Your task to perform on an android device: turn off location Image 0: 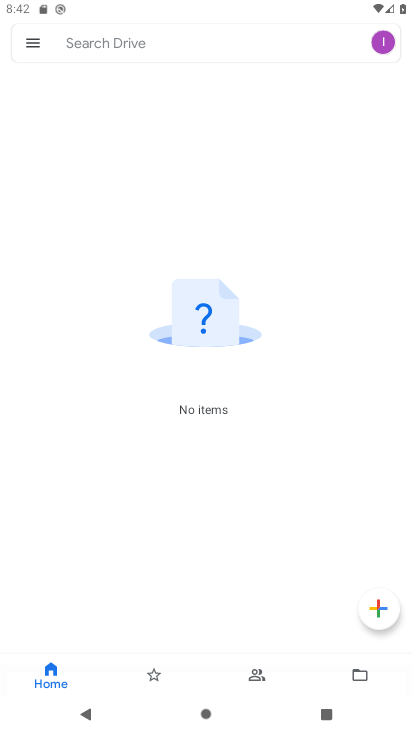
Step 0: press home button
Your task to perform on an android device: turn off location Image 1: 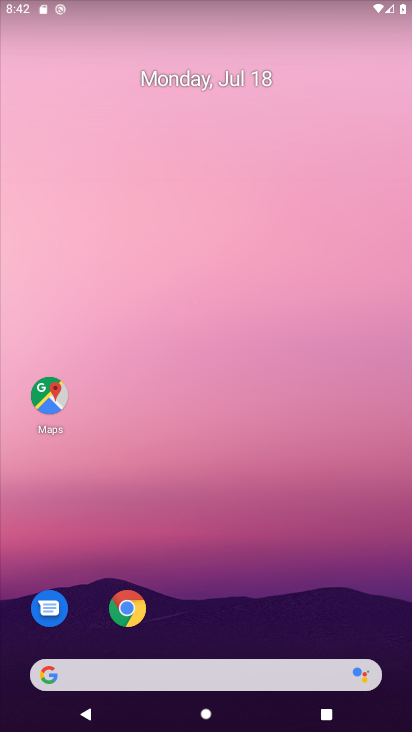
Step 1: drag from (186, 676) to (263, 39)
Your task to perform on an android device: turn off location Image 2: 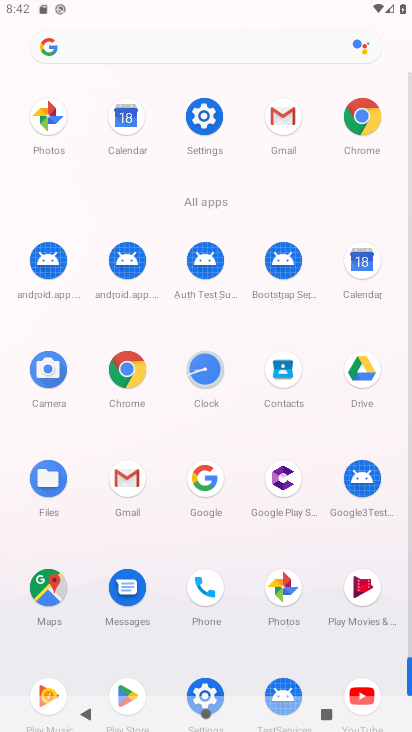
Step 2: click (204, 115)
Your task to perform on an android device: turn off location Image 3: 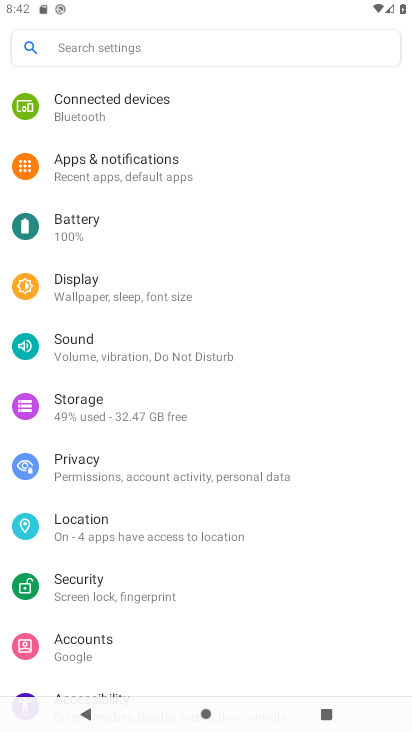
Step 3: click (82, 528)
Your task to perform on an android device: turn off location Image 4: 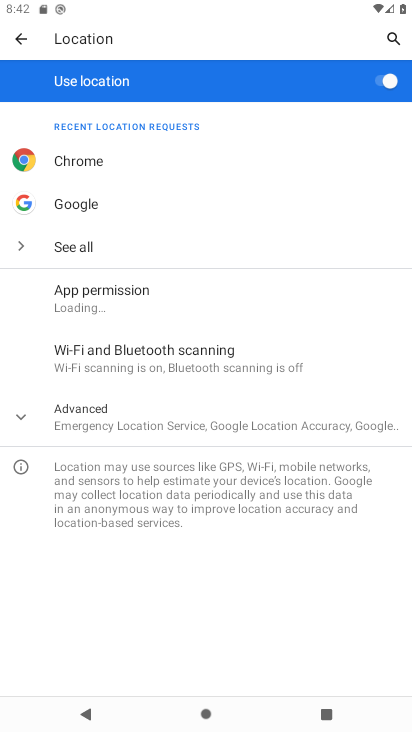
Step 4: click (378, 80)
Your task to perform on an android device: turn off location Image 5: 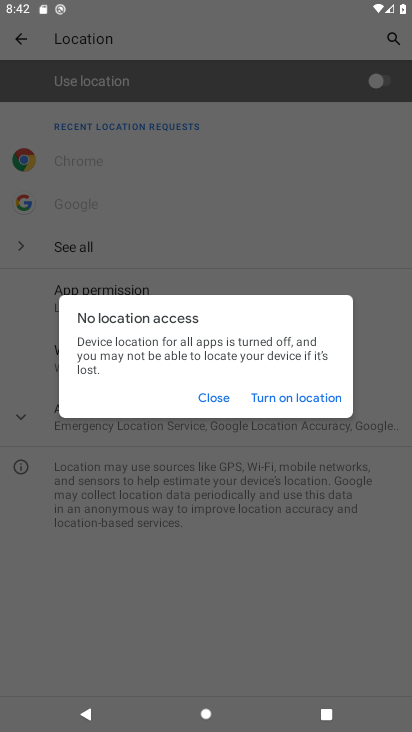
Step 5: click (213, 396)
Your task to perform on an android device: turn off location Image 6: 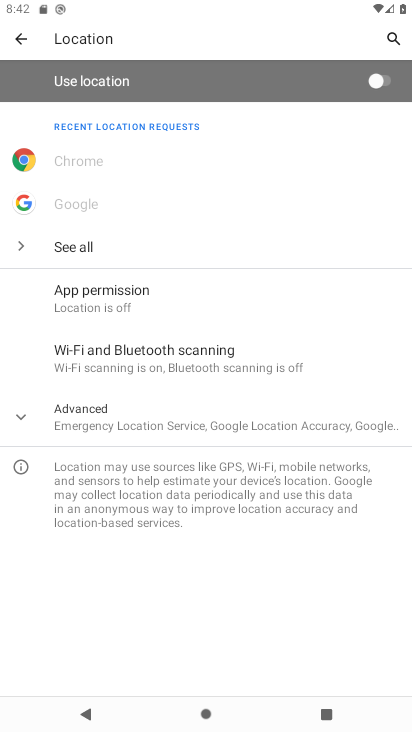
Step 6: task complete